Your task to perform on an android device: Open sound settings Image 0: 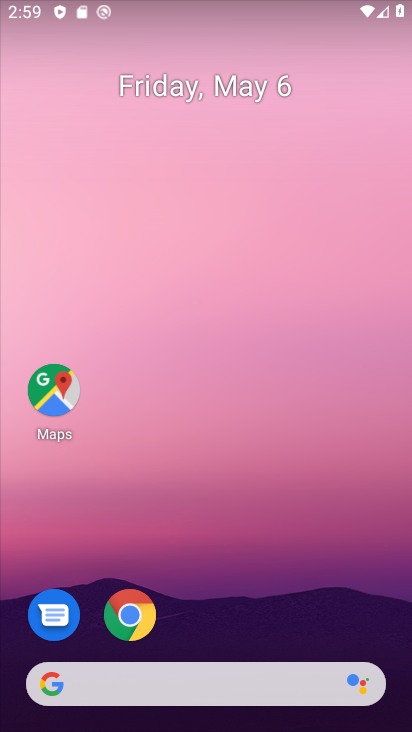
Step 0: drag from (243, 570) to (272, 241)
Your task to perform on an android device: Open sound settings Image 1: 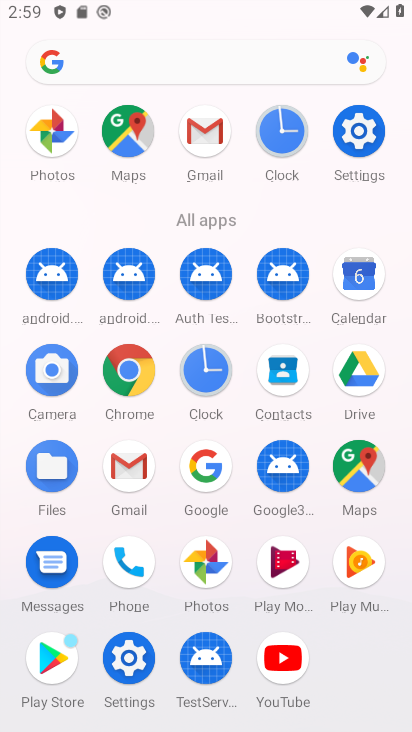
Step 1: click (351, 131)
Your task to perform on an android device: Open sound settings Image 2: 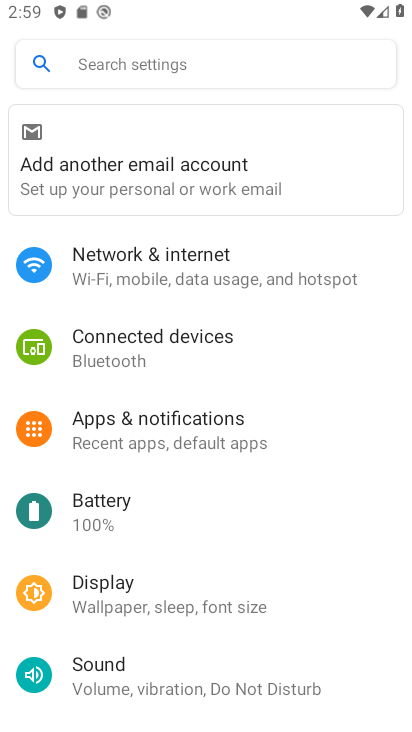
Step 2: click (202, 684)
Your task to perform on an android device: Open sound settings Image 3: 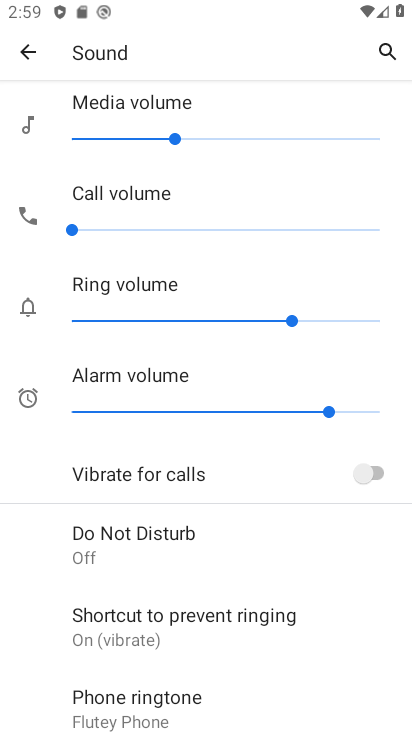
Step 3: task complete